Your task to perform on an android device: Clear the shopping cart on target.com. Image 0: 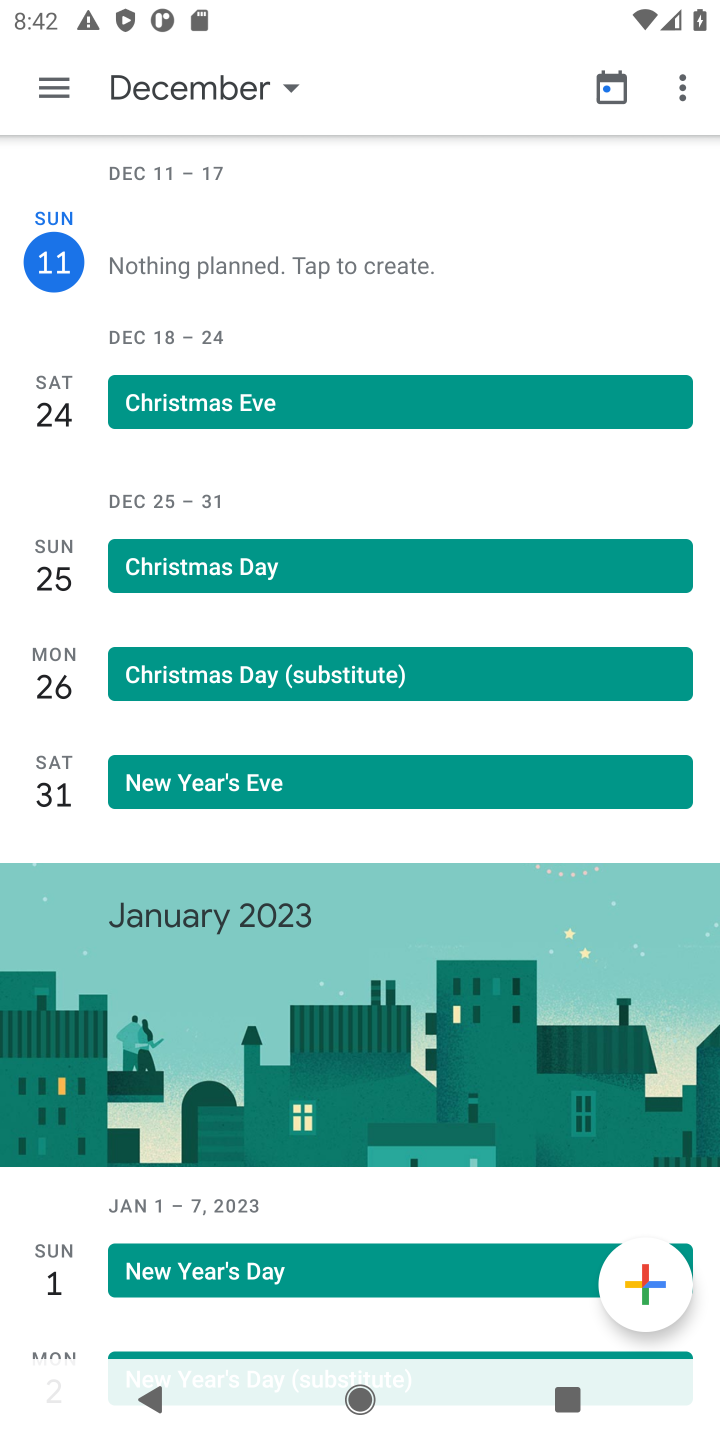
Step 0: press home button
Your task to perform on an android device: Clear the shopping cart on target.com. Image 1: 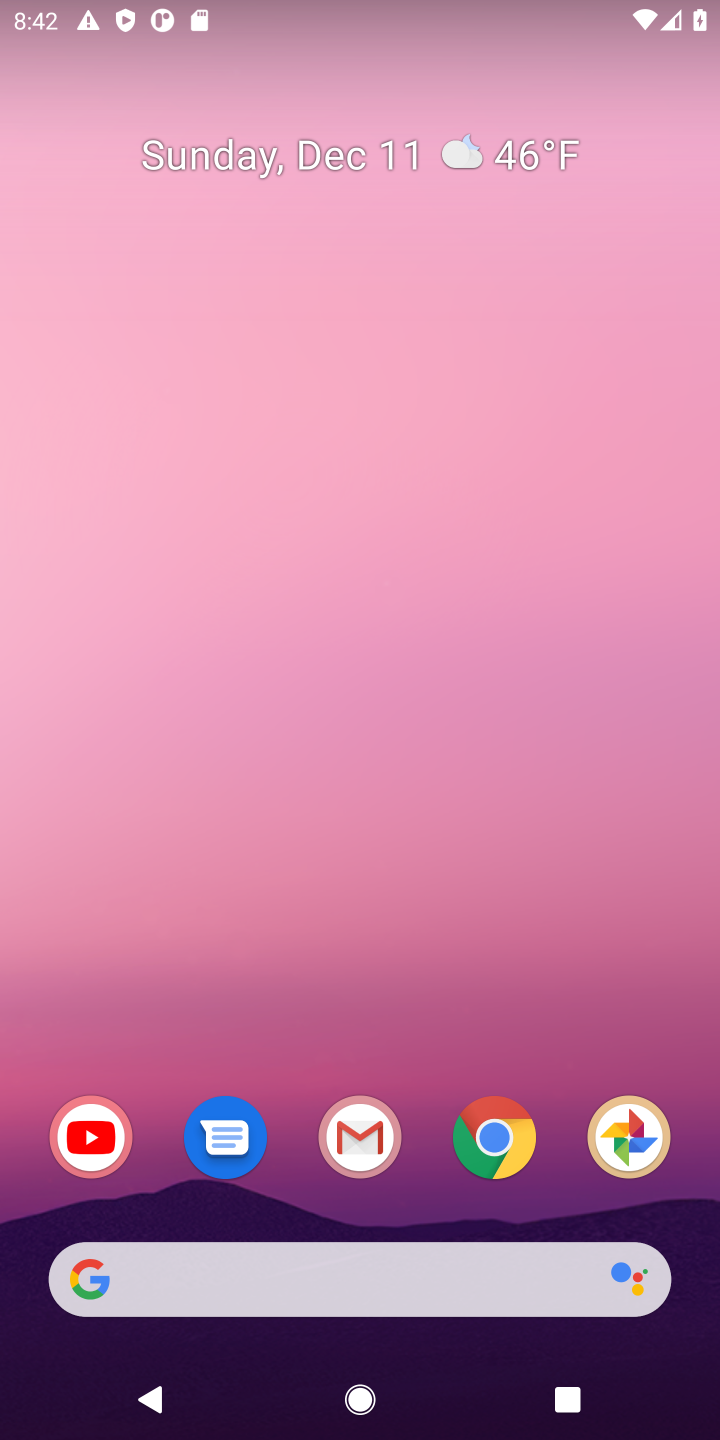
Step 1: click (493, 1124)
Your task to perform on an android device: Clear the shopping cart on target.com. Image 2: 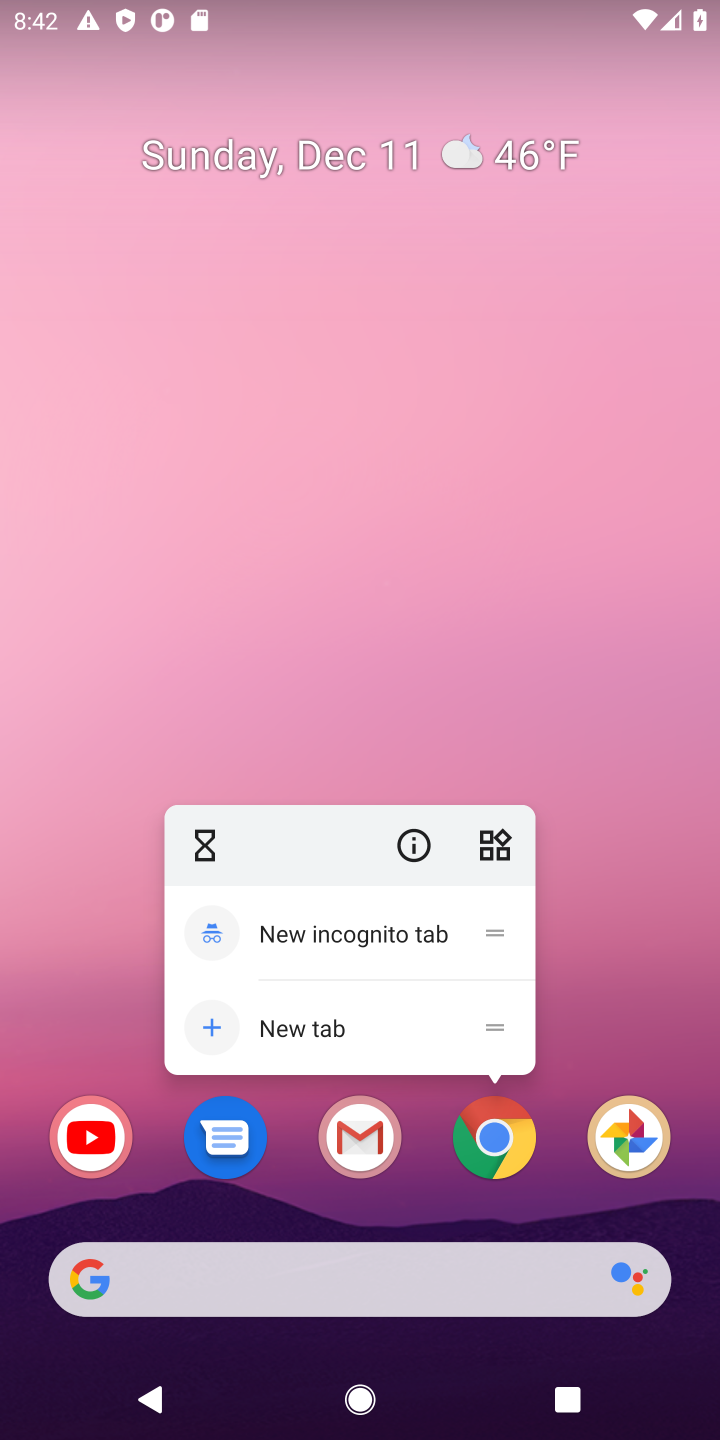
Step 2: click (507, 1144)
Your task to perform on an android device: Clear the shopping cart on target.com. Image 3: 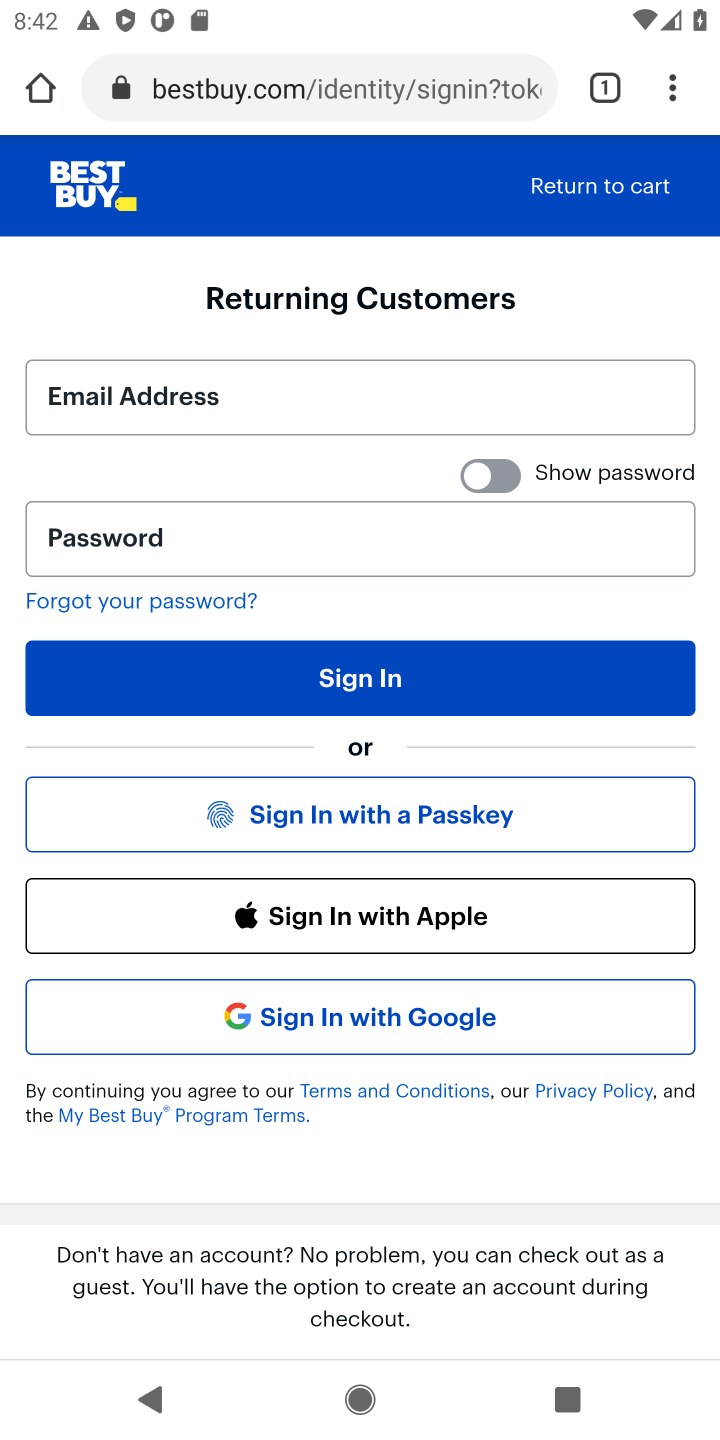
Step 3: click (341, 88)
Your task to perform on an android device: Clear the shopping cart on target.com. Image 4: 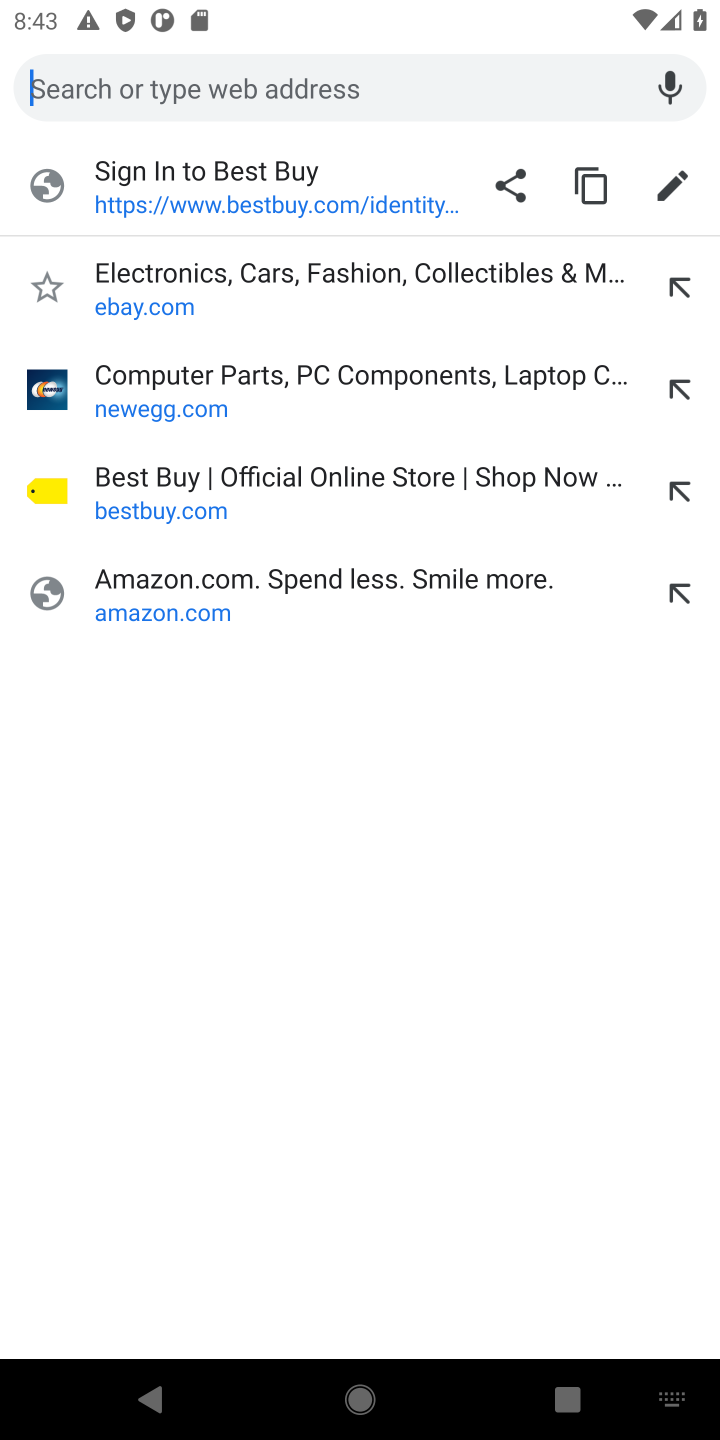
Step 4: type "TARGET"
Your task to perform on an android device: Clear the shopping cart on target.com. Image 5: 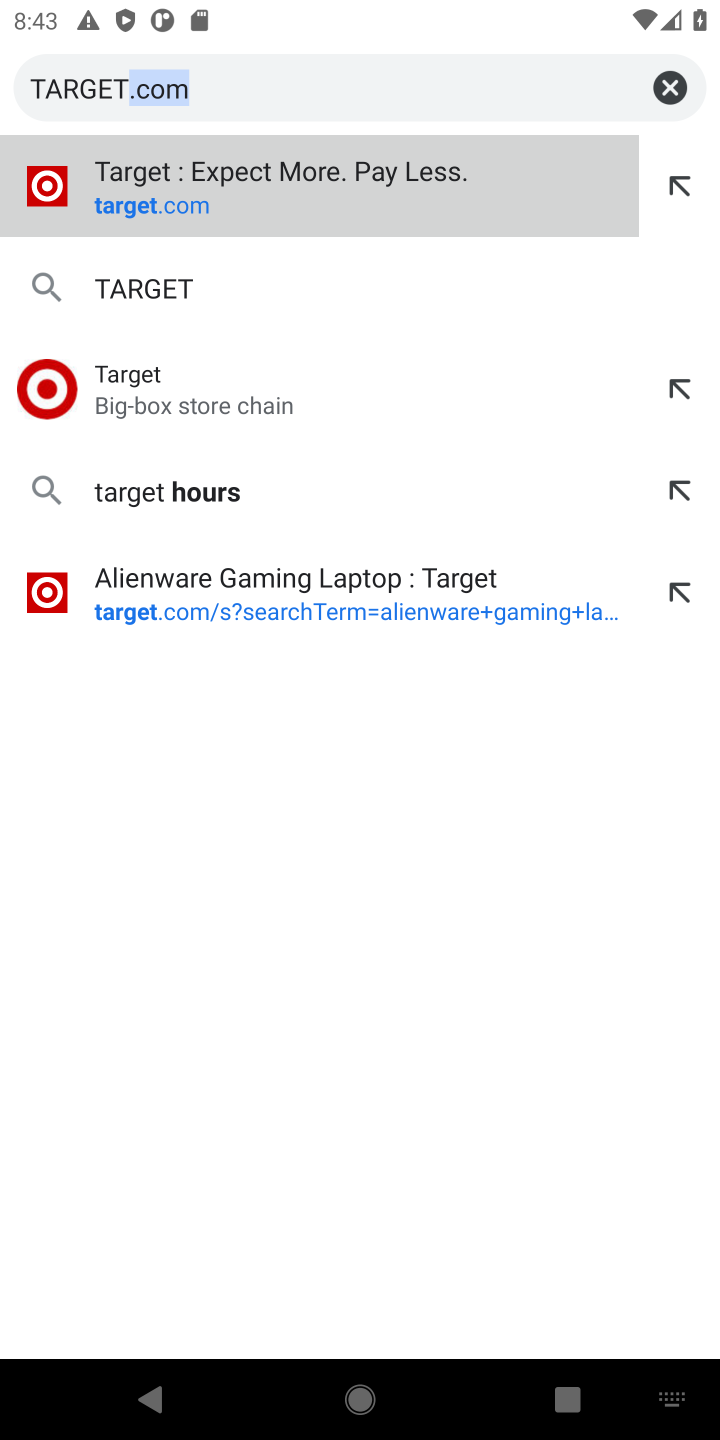
Step 5: click (125, 194)
Your task to perform on an android device: Clear the shopping cart on target.com. Image 6: 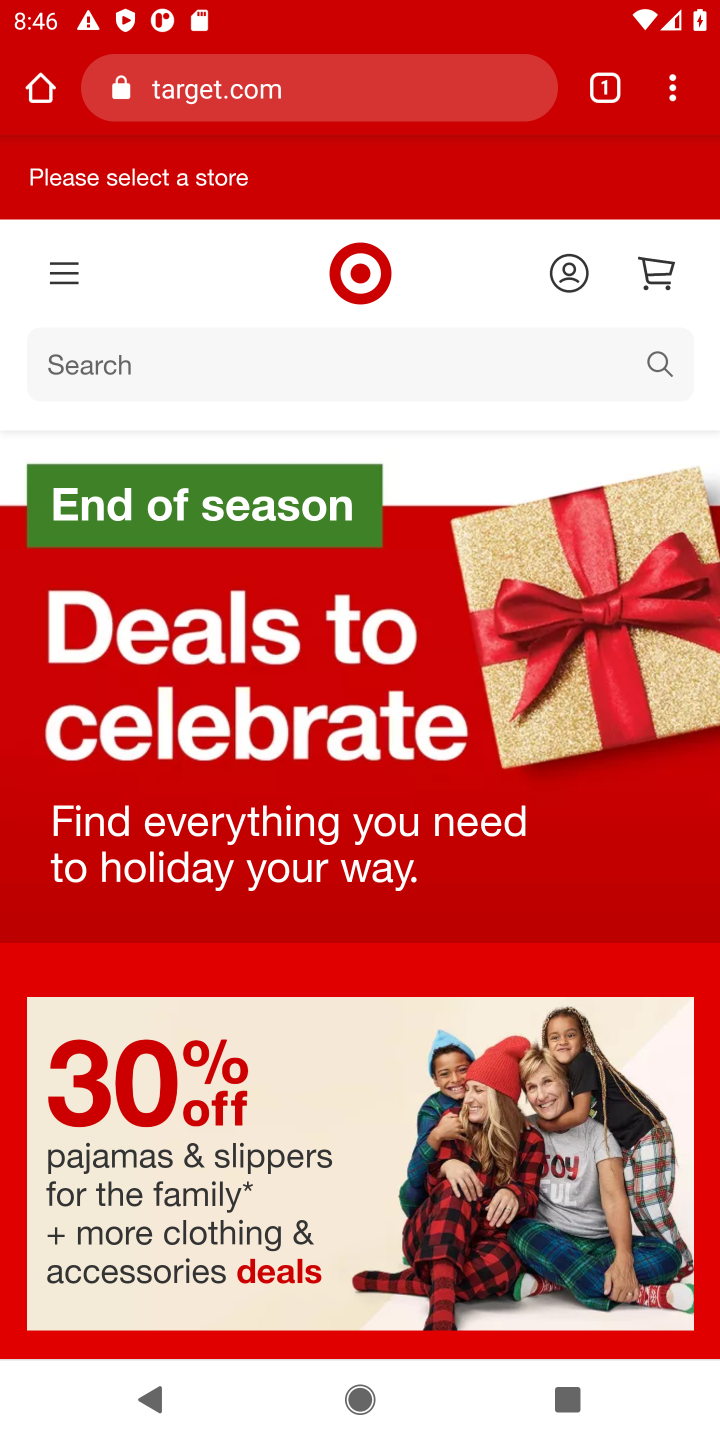
Step 6: task complete